Your task to perform on an android device: Search for "logitech g502" on costco.com, select the first entry, add it to the cart, then select checkout. Image 0: 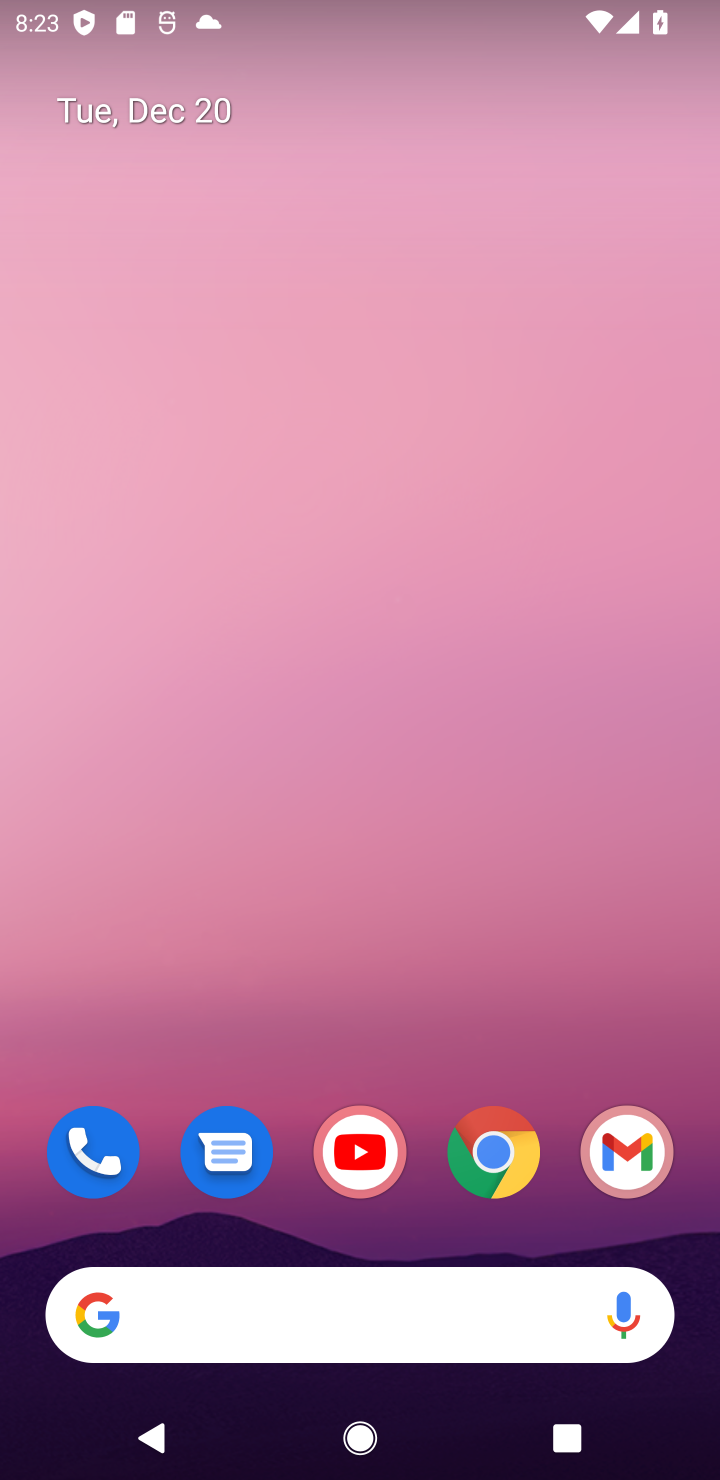
Step 0: click (484, 1151)
Your task to perform on an android device: Search for "logitech g502" on costco.com, select the first entry, add it to the cart, then select checkout. Image 1: 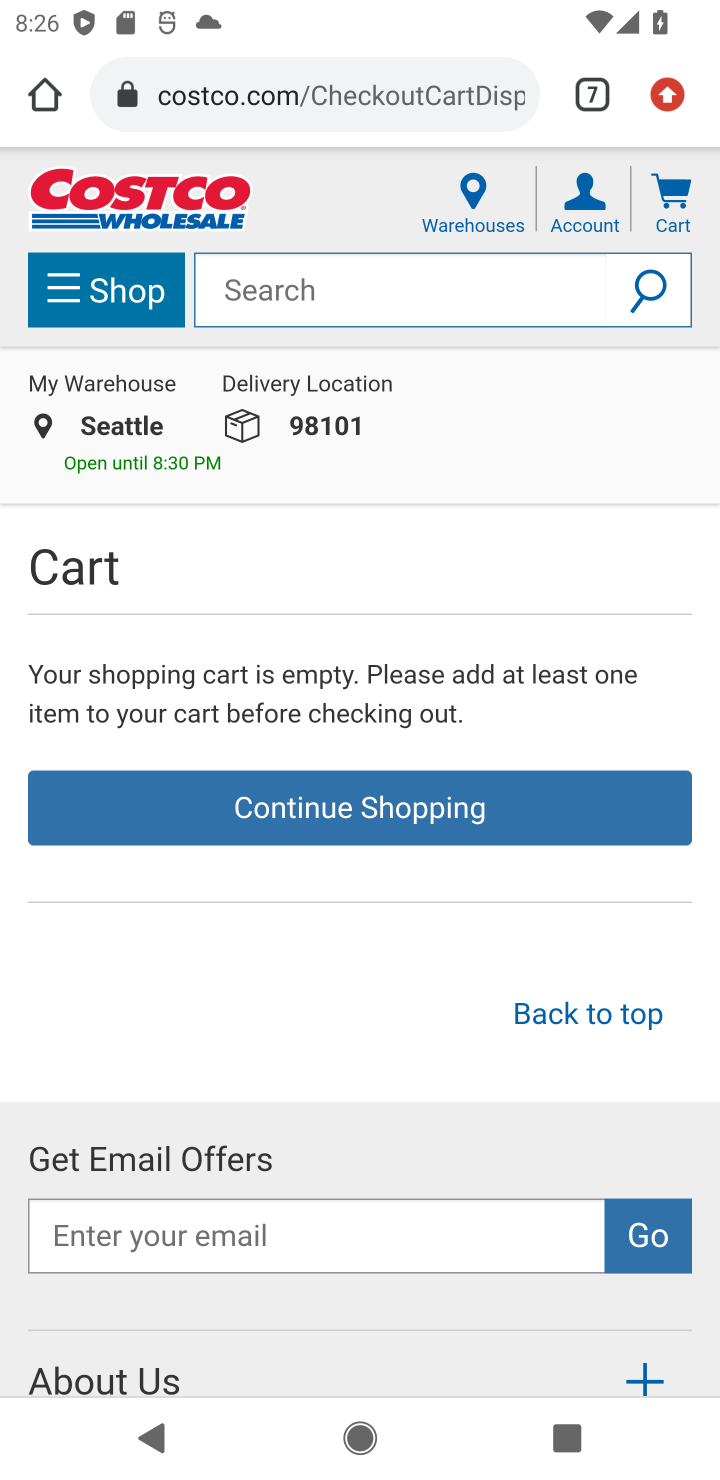
Step 1: click (458, 272)
Your task to perform on an android device: Search for "logitech g502" on costco.com, select the first entry, add it to the cart, then select checkout. Image 2: 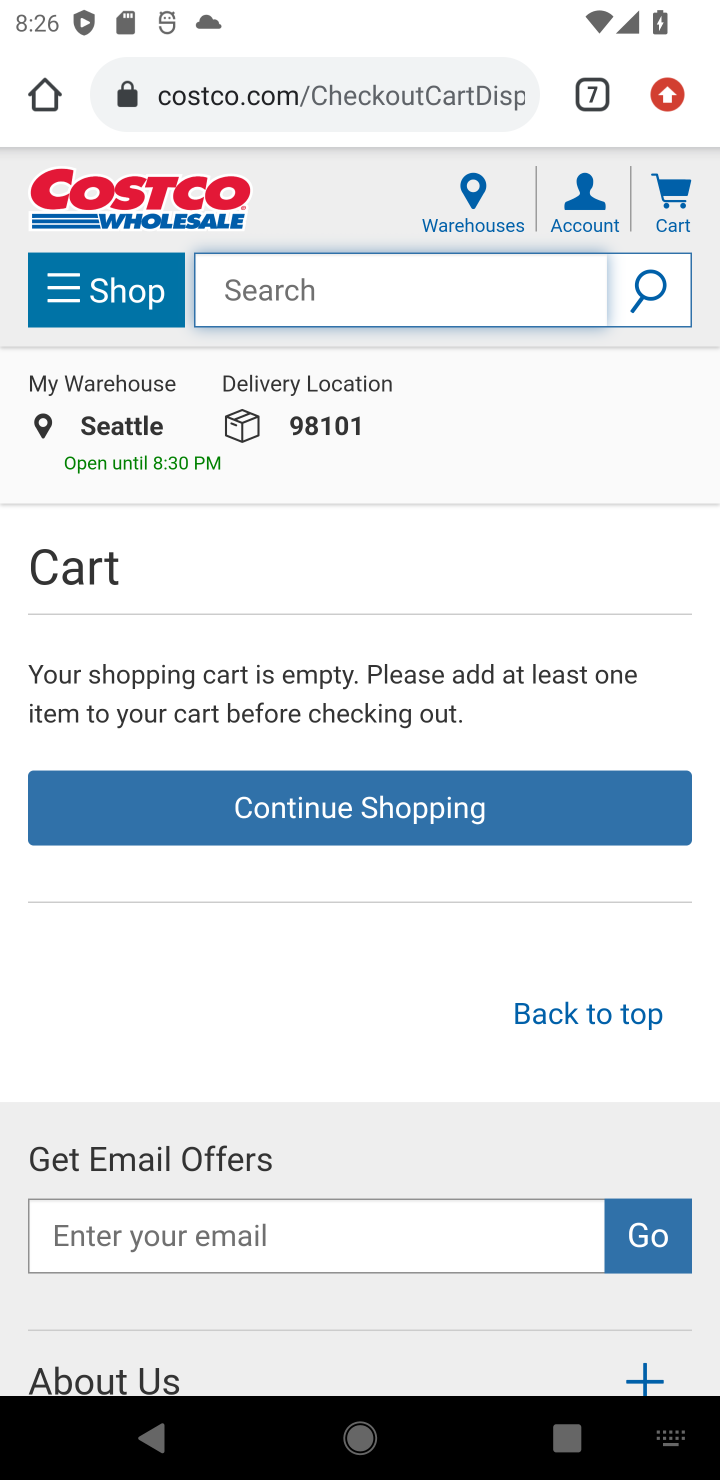
Step 2: task complete